Your task to perform on an android device: turn off airplane mode Image 0: 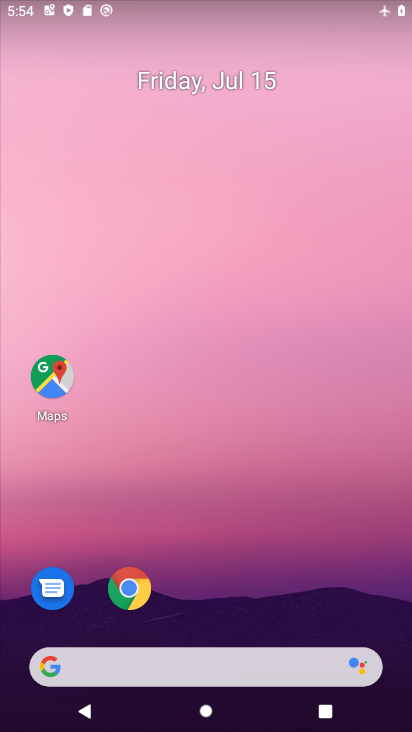
Step 0: drag from (270, 623) to (328, 0)
Your task to perform on an android device: turn off airplane mode Image 1: 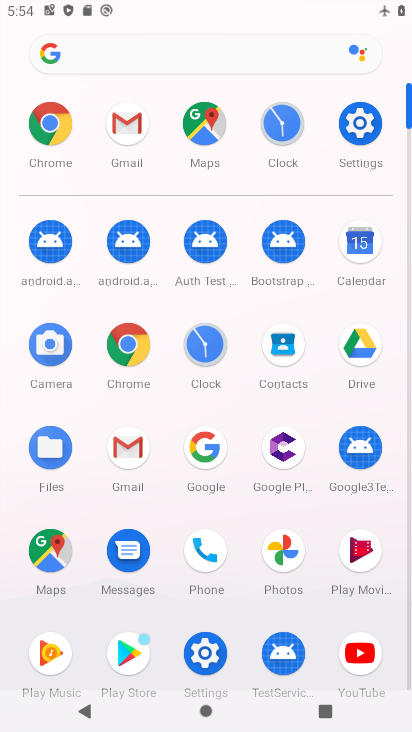
Step 1: click (377, 124)
Your task to perform on an android device: turn off airplane mode Image 2: 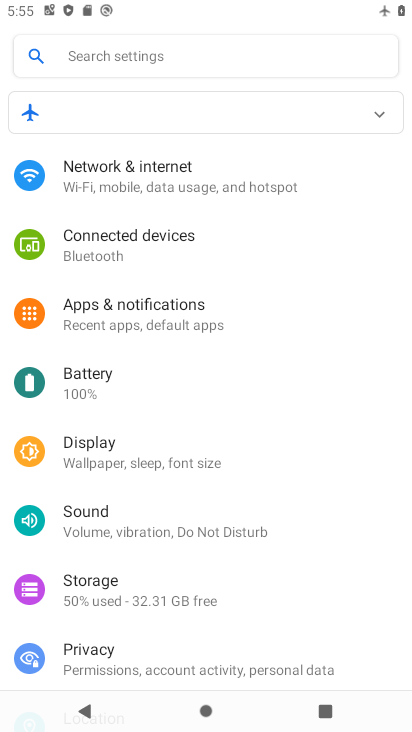
Step 2: click (107, 171)
Your task to perform on an android device: turn off airplane mode Image 3: 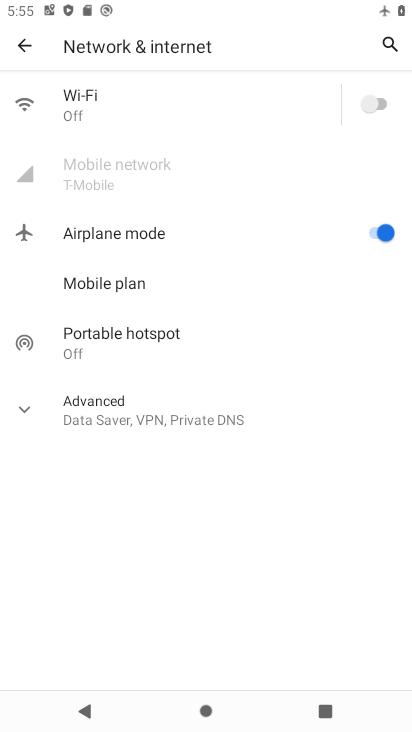
Step 3: click (363, 231)
Your task to perform on an android device: turn off airplane mode Image 4: 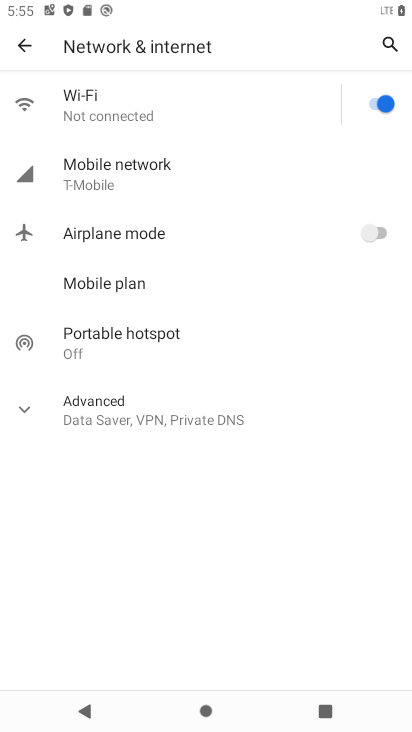
Step 4: task complete